Your task to perform on an android device: Open Google Maps Image 0: 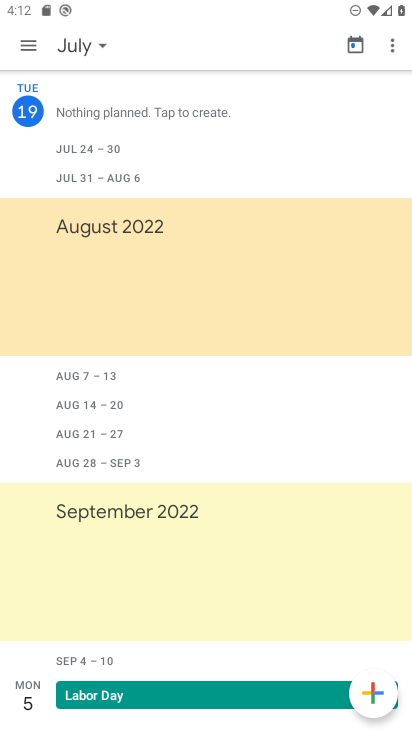
Step 0: press back button
Your task to perform on an android device: Open Google Maps Image 1: 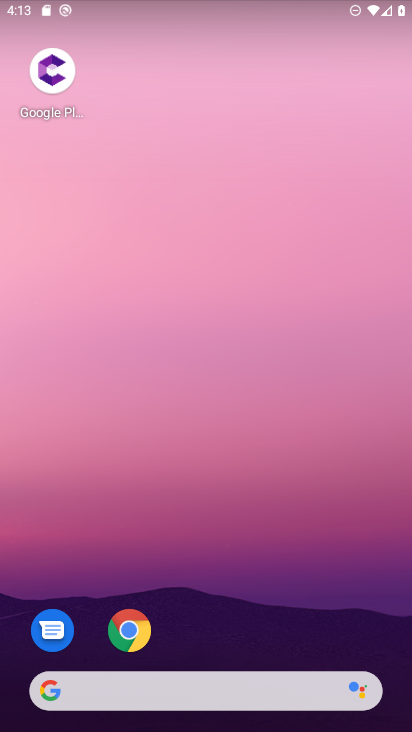
Step 1: drag from (242, 606) to (242, 83)
Your task to perform on an android device: Open Google Maps Image 2: 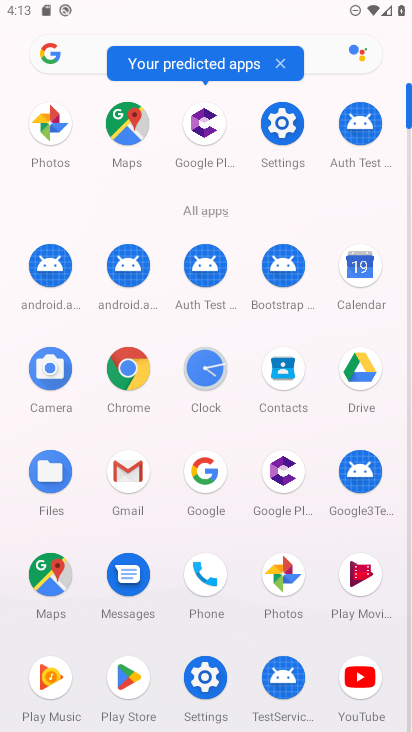
Step 2: click (124, 119)
Your task to perform on an android device: Open Google Maps Image 3: 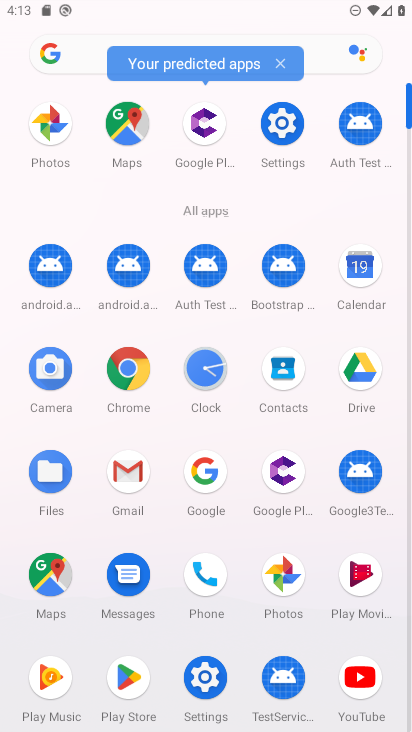
Step 3: click (125, 118)
Your task to perform on an android device: Open Google Maps Image 4: 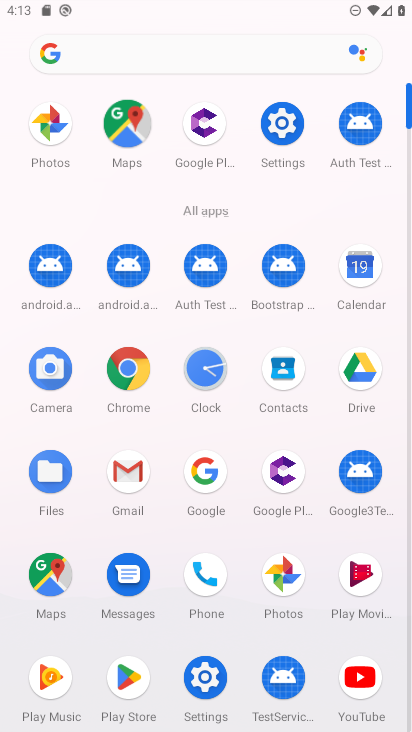
Step 4: click (125, 120)
Your task to perform on an android device: Open Google Maps Image 5: 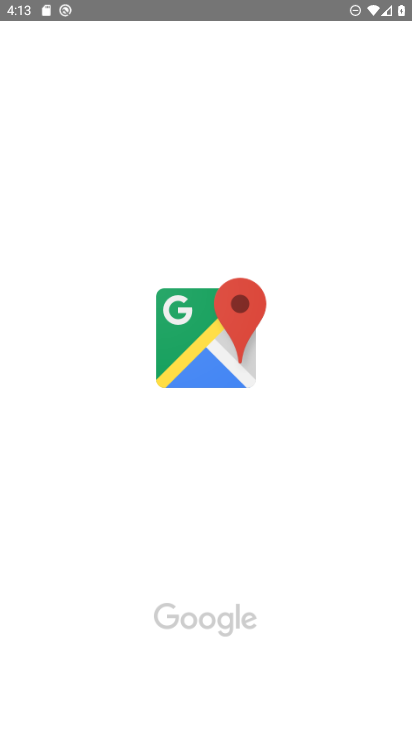
Step 5: click (125, 120)
Your task to perform on an android device: Open Google Maps Image 6: 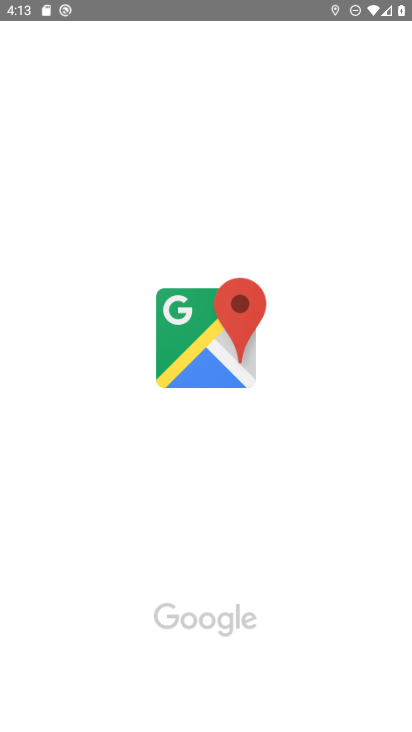
Step 6: click (213, 319)
Your task to perform on an android device: Open Google Maps Image 7: 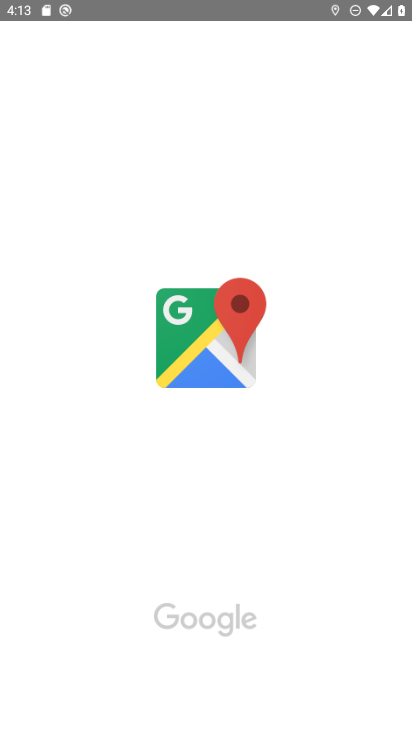
Step 7: click (214, 342)
Your task to perform on an android device: Open Google Maps Image 8: 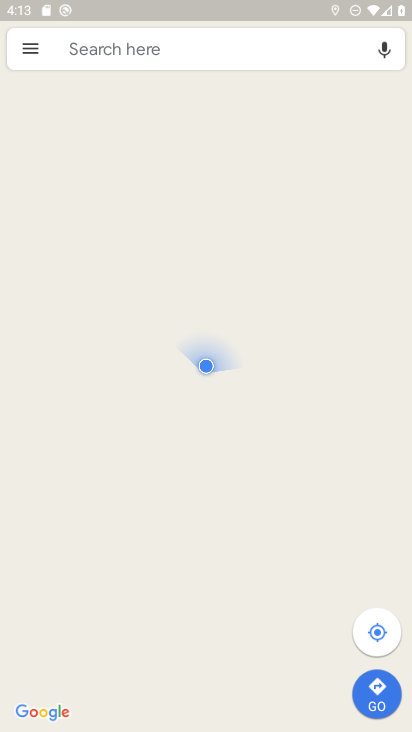
Step 8: task complete